Your task to perform on an android device: Open calendar and show me the second week of next month Image 0: 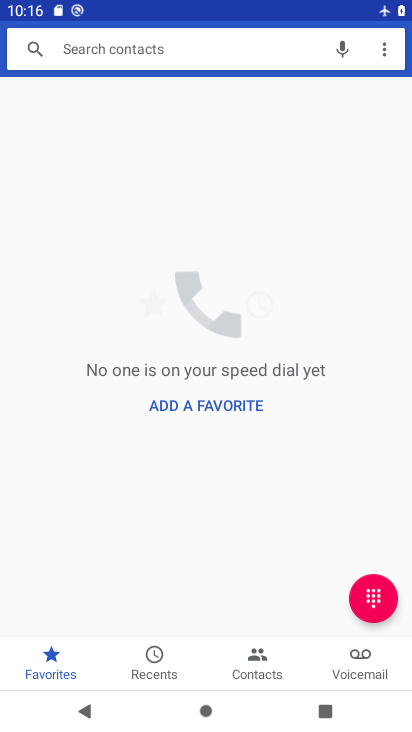
Step 0: drag from (153, 616) to (171, 477)
Your task to perform on an android device: Open calendar and show me the second week of next month Image 1: 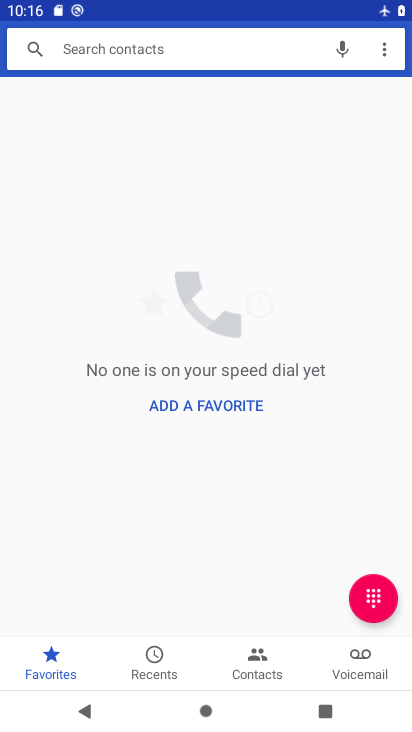
Step 1: press home button
Your task to perform on an android device: Open calendar and show me the second week of next month Image 2: 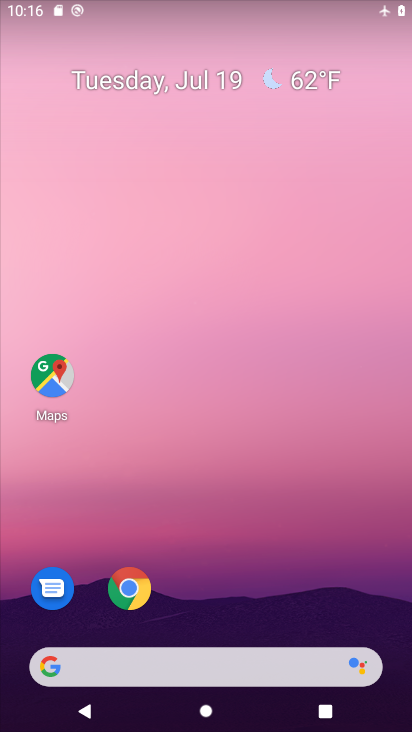
Step 2: drag from (191, 479) to (169, 254)
Your task to perform on an android device: Open calendar and show me the second week of next month Image 3: 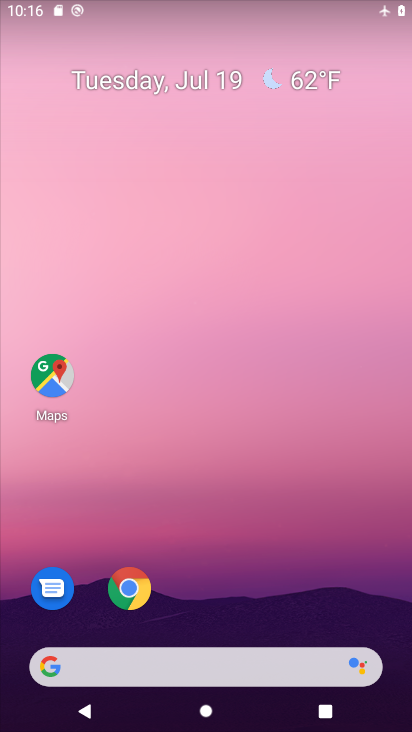
Step 3: drag from (191, 557) to (199, 72)
Your task to perform on an android device: Open calendar and show me the second week of next month Image 4: 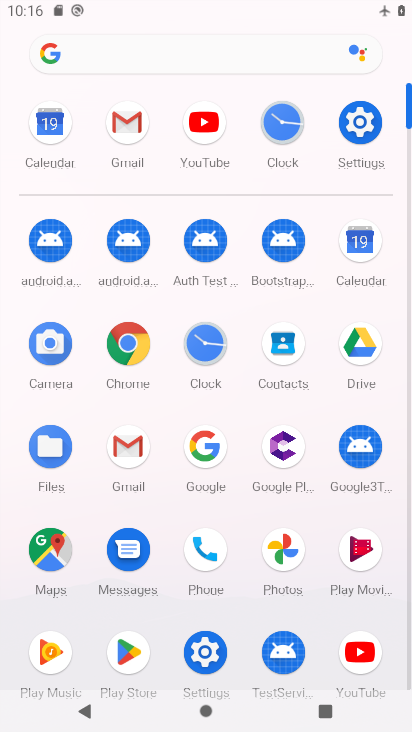
Step 4: click (355, 277)
Your task to perform on an android device: Open calendar and show me the second week of next month Image 5: 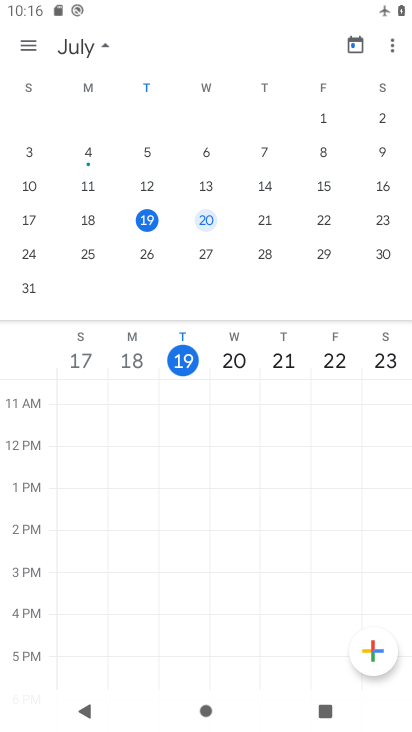
Step 5: drag from (164, 150) to (46, 156)
Your task to perform on an android device: Open calendar and show me the second week of next month Image 6: 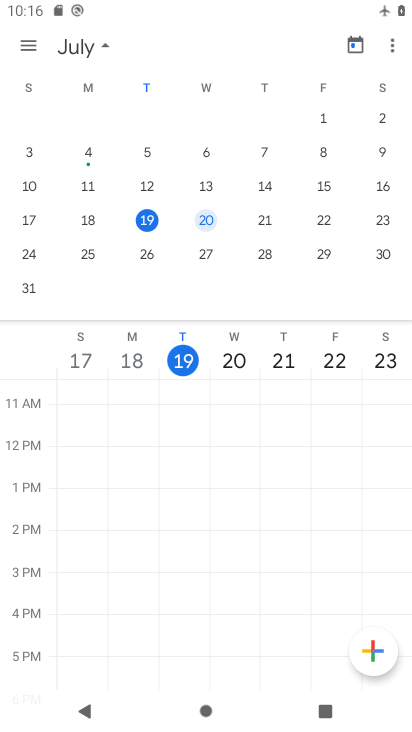
Step 6: drag from (327, 206) to (1, 205)
Your task to perform on an android device: Open calendar and show me the second week of next month Image 7: 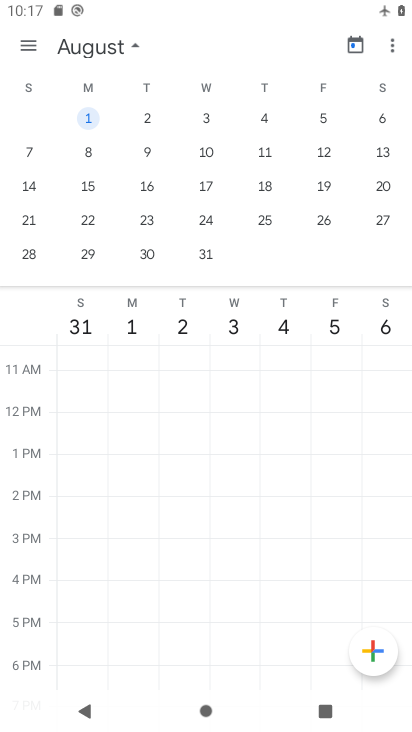
Step 7: click (31, 145)
Your task to perform on an android device: Open calendar and show me the second week of next month Image 8: 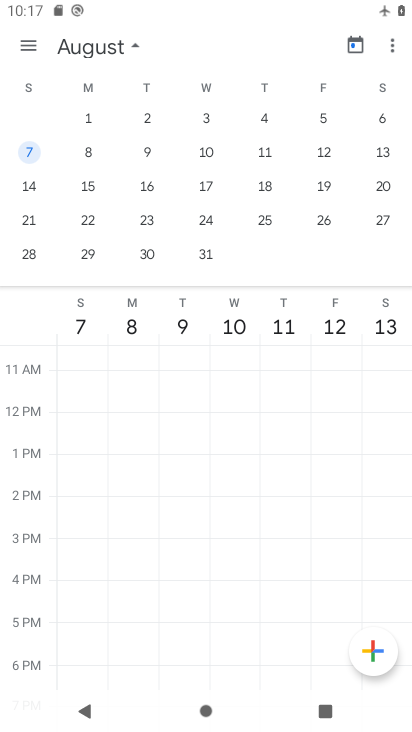
Step 8: task complete